Your task to perform on an android device: Set the phone to "Do not disturb". Image 0: 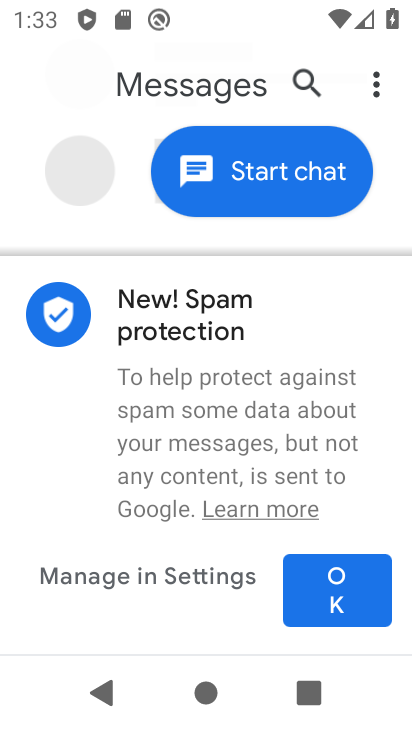
Step 0: press home button
Your task to perform on an android device: Set the phone to "Do not disturb". Image 1: 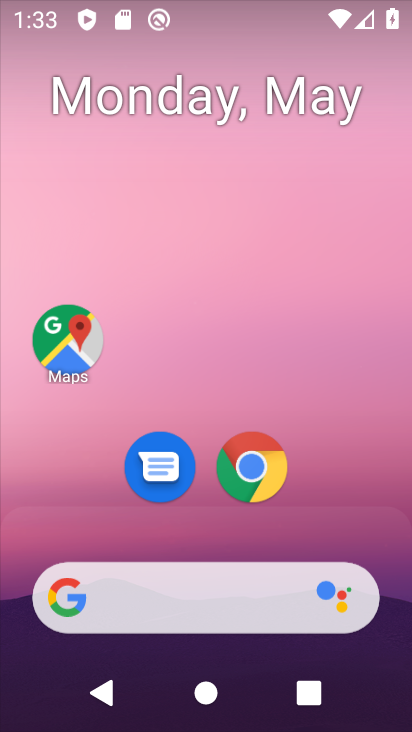
Step 1: drag from (182, 427) to (198, 24)
Your task to perform on an android device: Set the phone to "Do not disturb". Image 2: 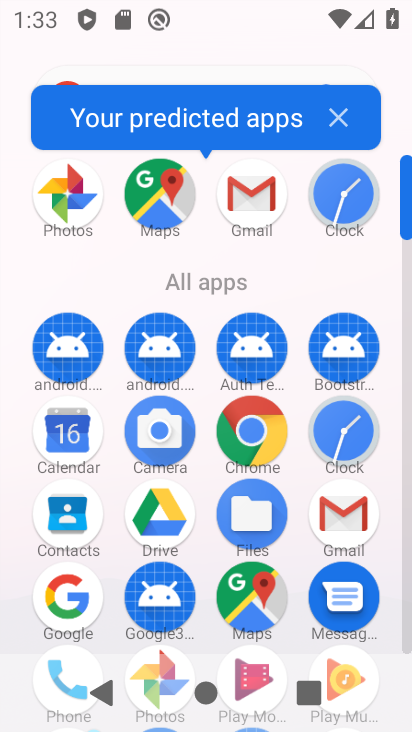
Step 2: drag from (193, 599) to (283, 340)
Your task to perform on an android device: Set the phone to "Do not disturb". Image 3: 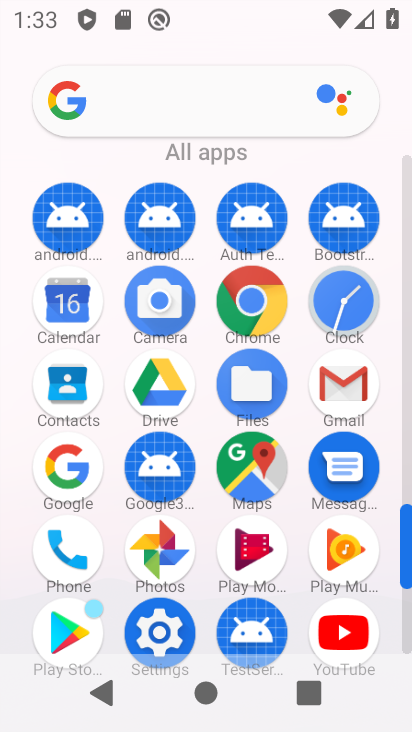
Step 3: click (146, 619)
Your task to perform on an android device: Set the phone to "Do not disturb". Image 4: 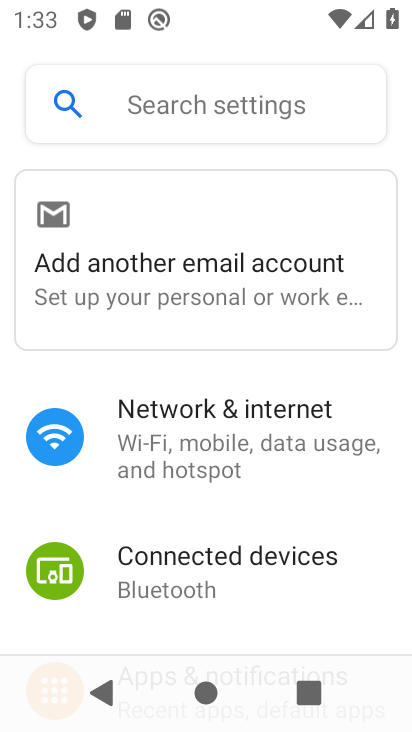
Step 4: drag from (251, 592) to (382, 203)
Your task to perform on an android device: Set the phone to "Do not disturb". Image 5: 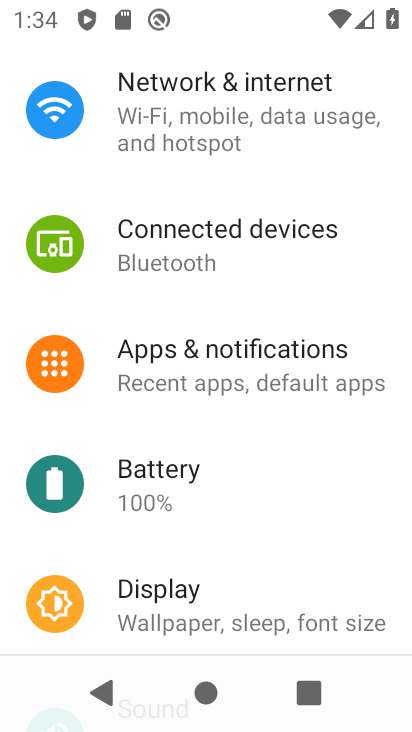
Step 5: click (252, 418)
Your task to perform on an android device: Set the phone to "Do not disturb". Image 6: 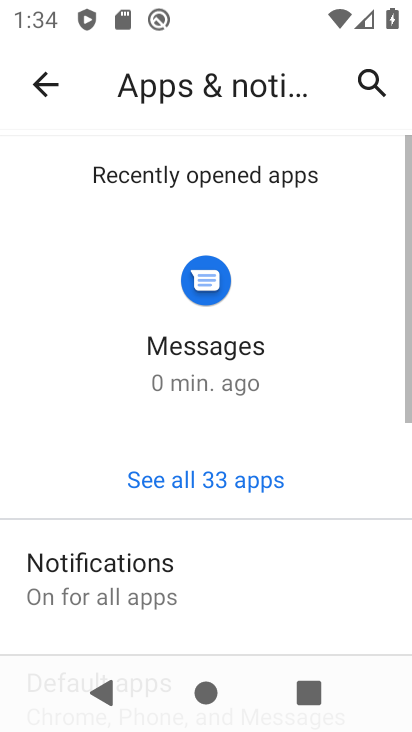
Step 6: drag from (181, 615) to (328, 123)
Your task to perform on an android device: Set the phone to "Do not disturb". Image 7: 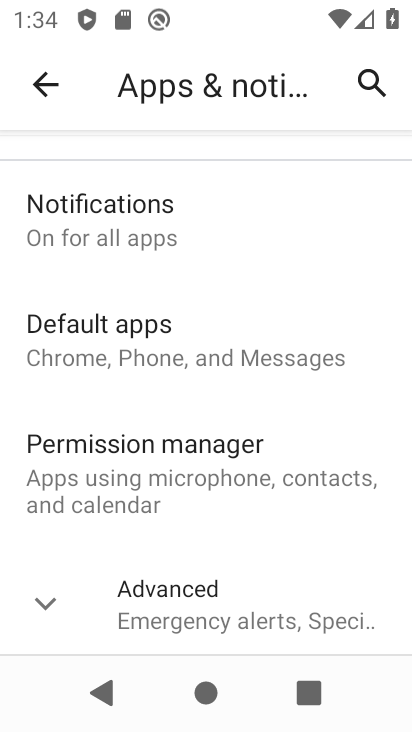
Step 7: click (232, 216)
Your task to perform on an android device: Set the phone to "Do not disturb". Image 8: 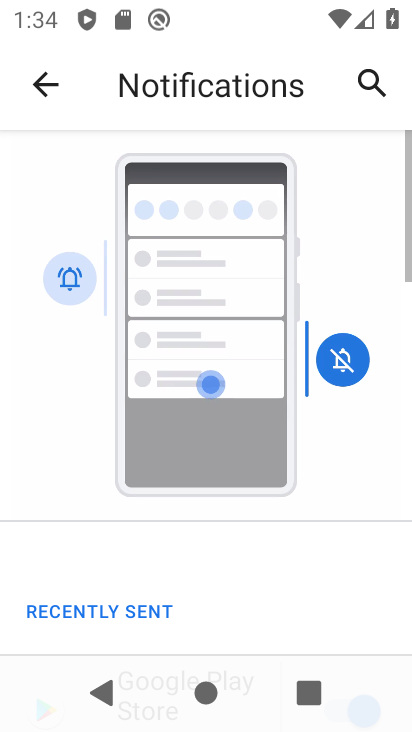
Step 8: drag from (225, 574) to (369, 97)
Your task to perform on an android device: Set the phone to "Do not disturb". Image 9: 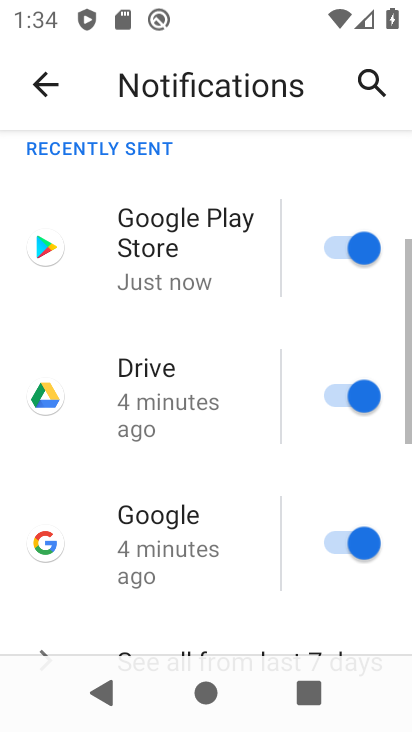
Step 9: drag from (210, 585) to (337, 147)
Your task to perform on an android device: Set the phone to "Do not disturb". Image 10: 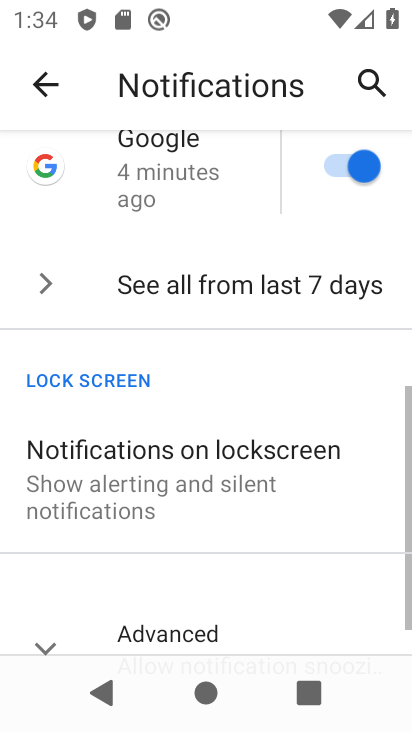
Step 10: drag from (197, 579) to (312, 253)
Your task to perform on an android device: Set the phone to "Do not disturb". Image 11: 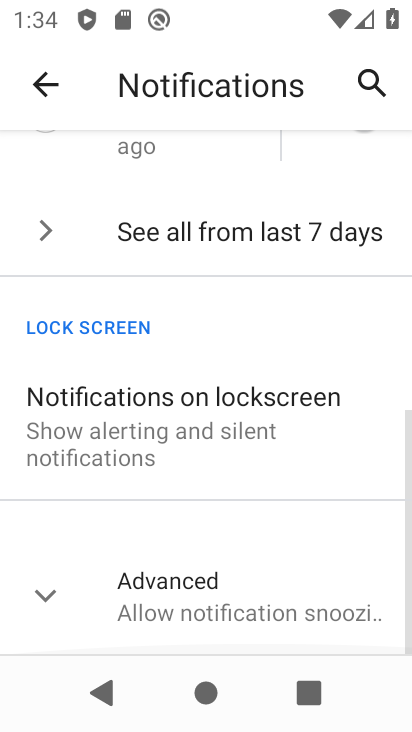
Step 11: click (194, 575)
Your task to perform on an android device: Set the phone to "Do not disturb". Image 12: 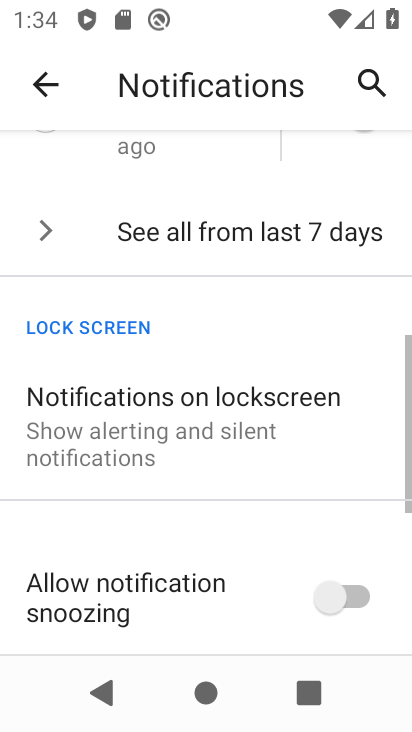
Step 12: drag from (145, 623) to (316, 160)
Your task to perform on an android device: Set the phone to "Do not disturb". Image 13: 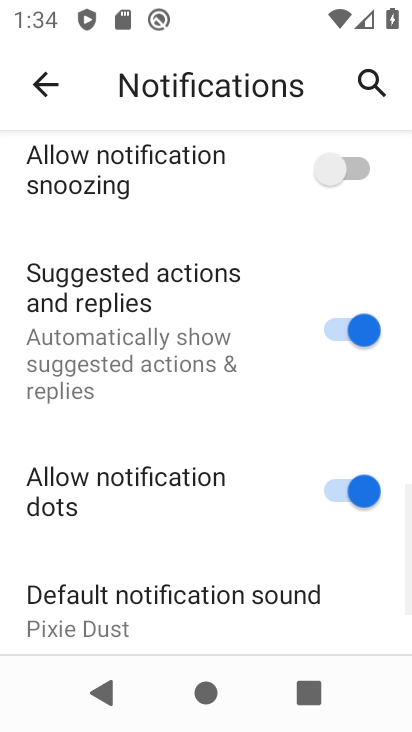
Step 13: drag from (243, 586) to (410, 264)
Your task to perform on an android device: Set the phone to "Do not disturb". Image 14: 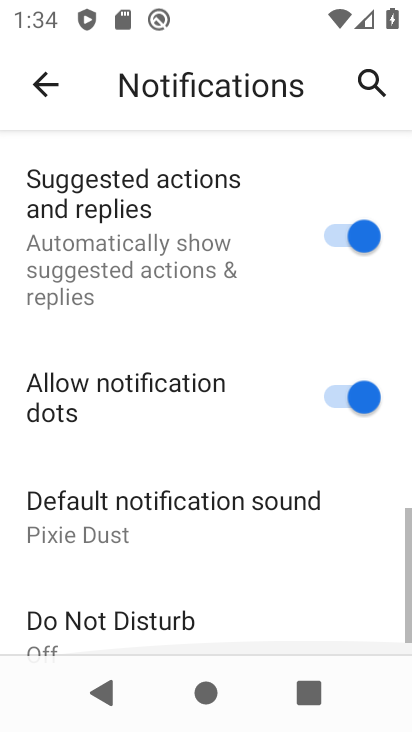
Step 14: click (240, 619)
Your task to perform on an android device: Set the phone to "Do not disturb". Image 15: 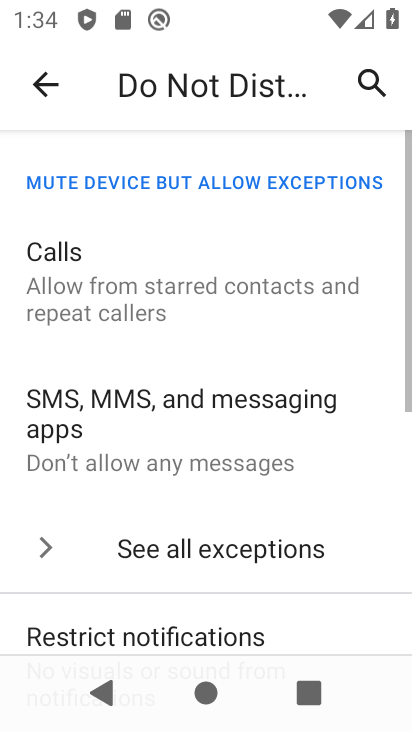
Step 15: drag from (202, 611) to (381, 28)
Your task to perform on an android device: Set the phone to "Do not disturb". Image 16: 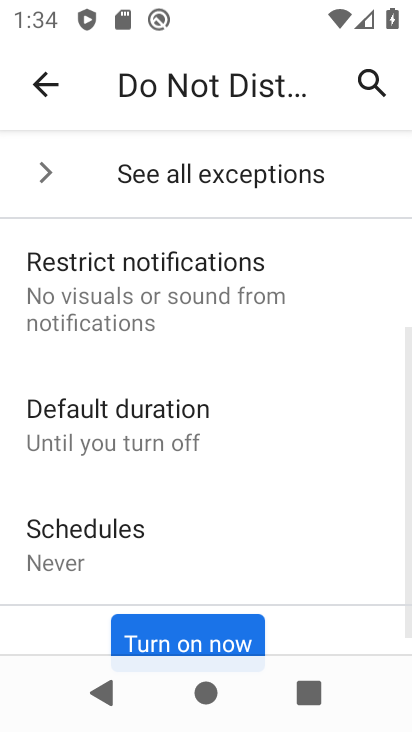
Step 16: click (148, 613)
Your task to perform on an android device: Set the phone to "Do not disturb". Image 17: 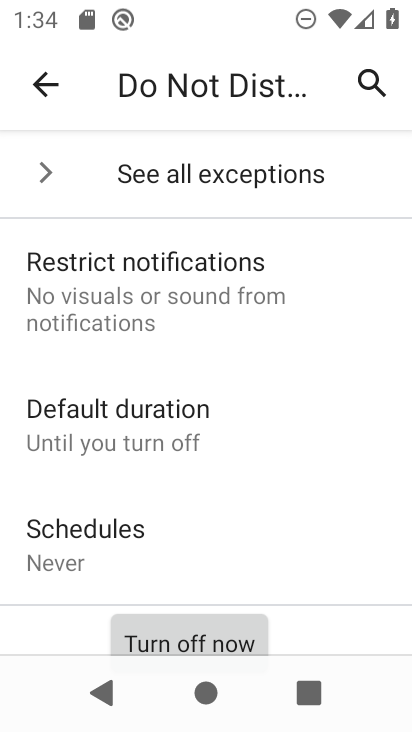
Step 17: task complete